Your task to perform on an android device: turn on the 24-hour format for clock Image 0: 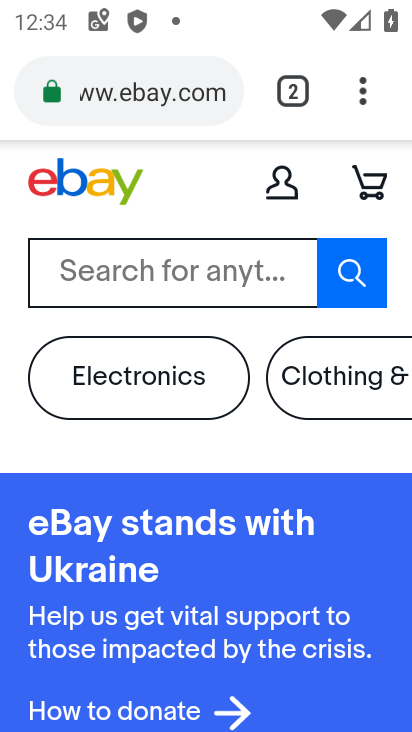
Step 0: press home button
Your task to perform on an android device: turn on the 24-hour format for clock Image 1: 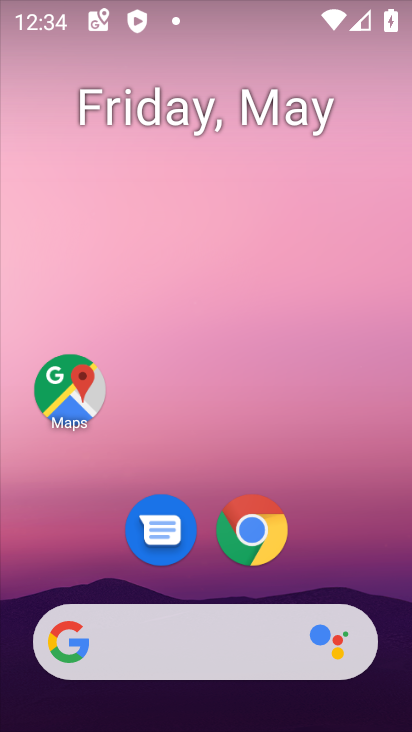
Step 1: drag from (333, 561) to (280, 203)
Your task to perform on an android device: turn on the 24-hour format for clock Image 2: 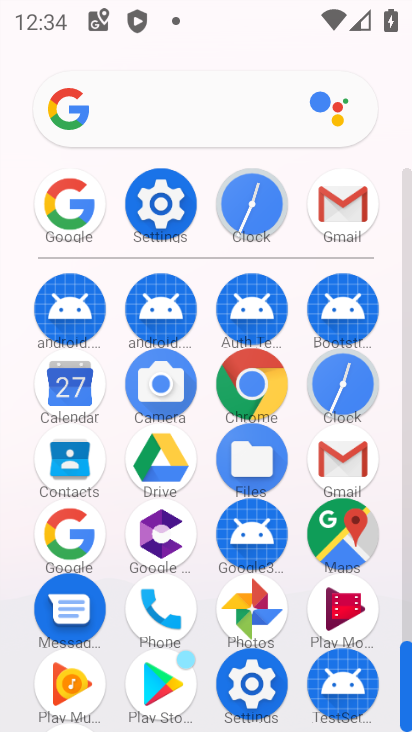
Step 2: click (252, 202)
Your task to perform on an android device: turn on the 24-hour format for clock Image 3: 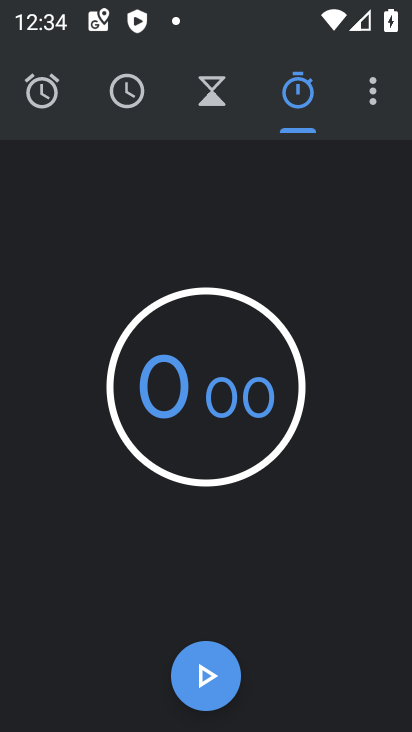
Step 3: click (373, 92)
Your task to perform on an android device: turn on the 24-hour format for clock Image 4: 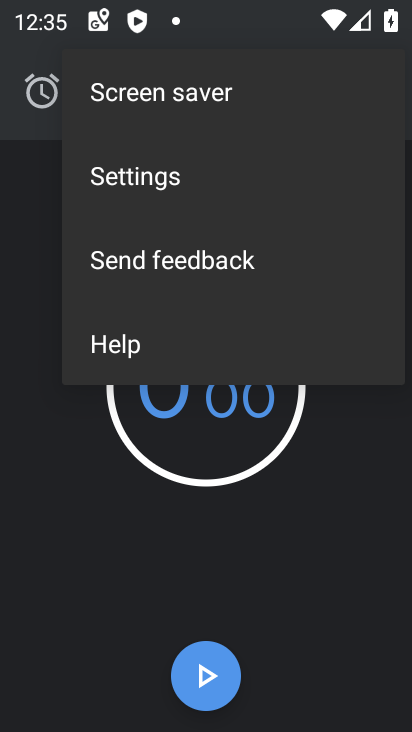
Step 4: click (160, 182)
Your task to perform on an android device: turn on the 24-hour format for clock Image 5: 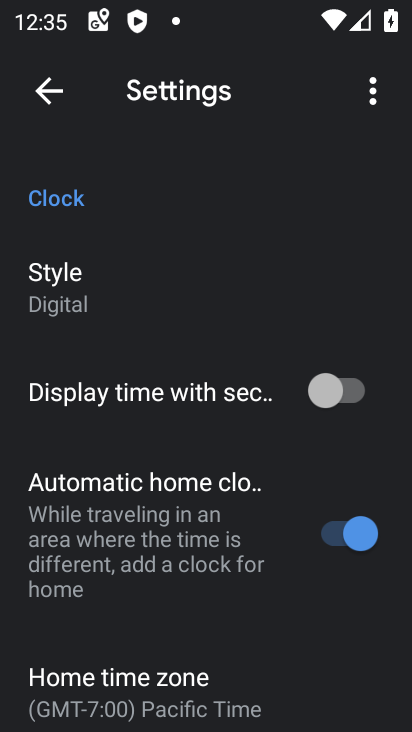
Step 5: drag from (136, 423) to (223, 308)
Your task to perform on an android device: turn on the 24-hour format for clock Image 6: 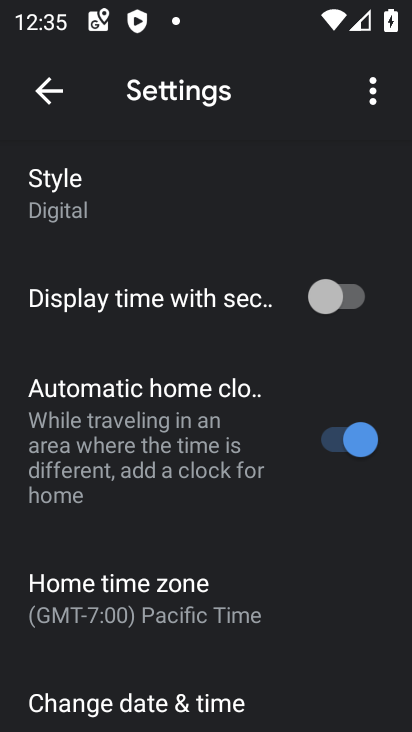
Step 6: drag from (163, 529) to (236, 377)
Your task to perform on an android device: turn on the 24-hour format for clock Image 7: 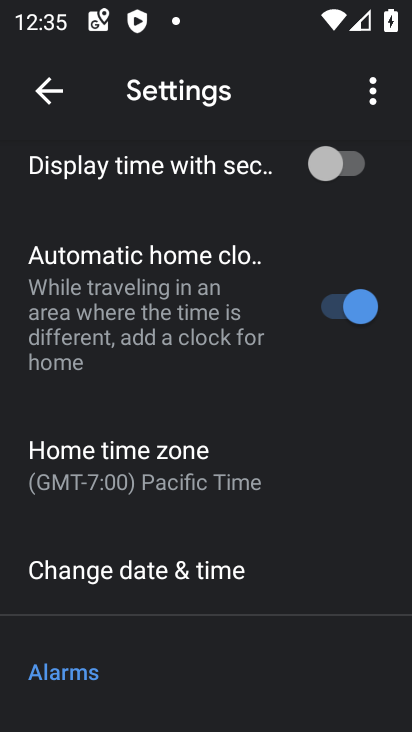
Step 7: click (178, 575)
Your task to perform on an android device: turn on the 24-hour format for clock Image 8: 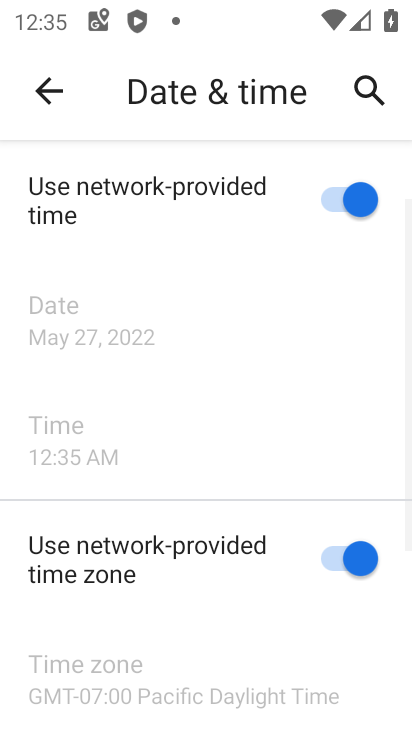
Step 8: drag from (174, 612) to (280, 409)
Your task to perform on an android device: turn on the 24-hour format for clock Image 9: 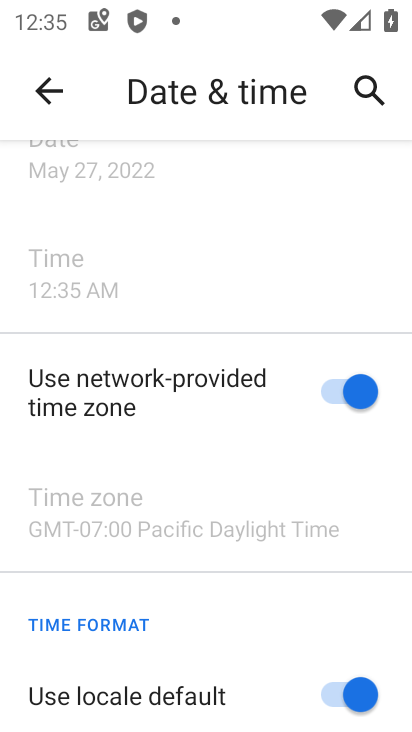
Step 9: drag from (176, 630) to (261, 472)
Your task to perform on an android device: turn on the 24-hour format for clock Image 10: 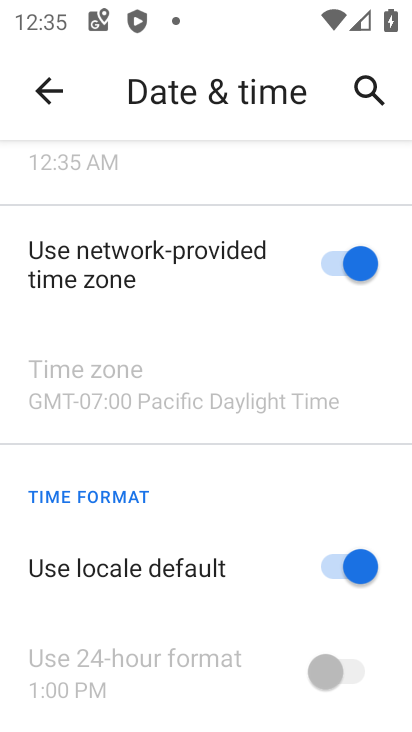
Step 10: click (344, 569)
Your task to perform on an android device: turn on the 24-hour format for clock Image 11: 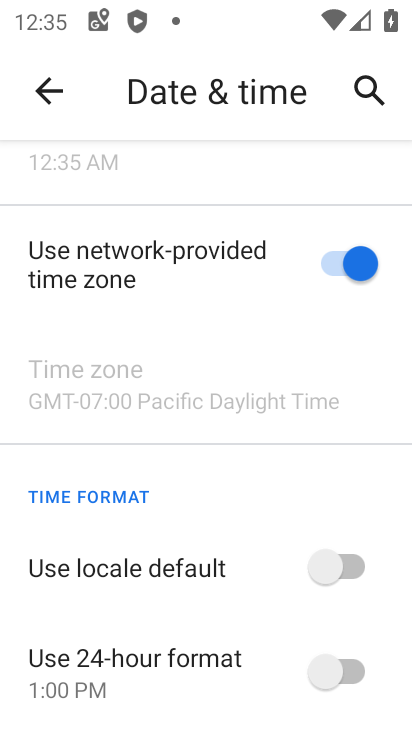
Step 11: click (361, 669)
Your task to perform on an android device: turn on the 24-hour format for clock Image 12: 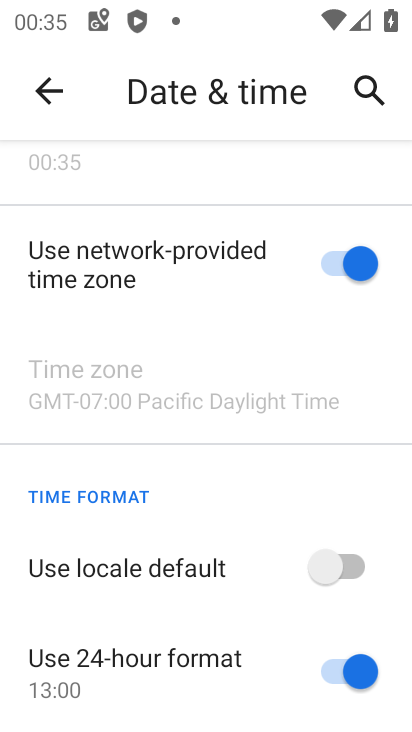
Step 12: task complete